Your task to perform on an android device: Open sound settings Image 0: 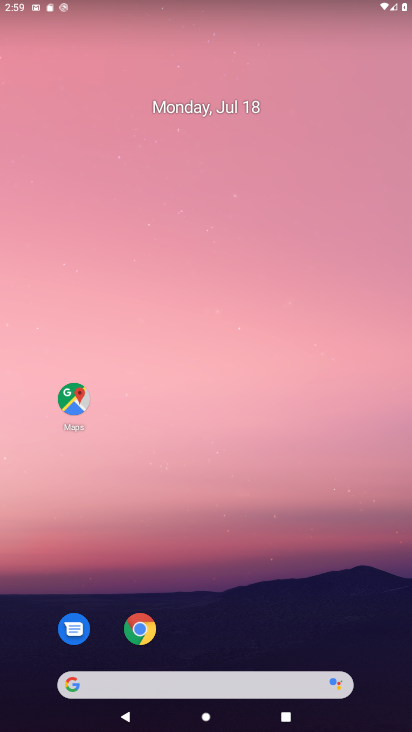
Step 0: drag from (310, 622) to (362, 98)
Your task to perform on an android device: Open sound settings Image 1: 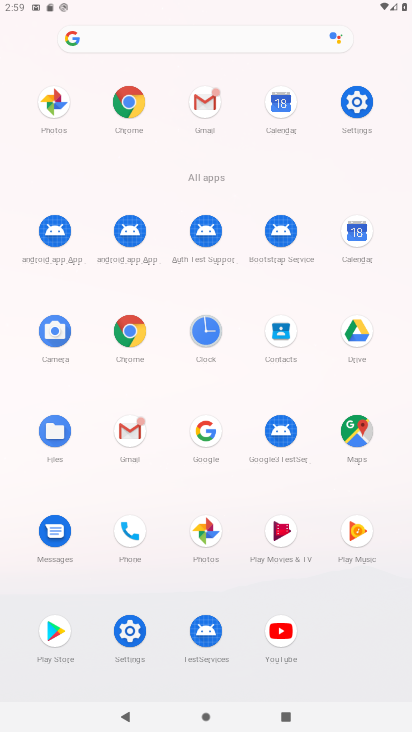
Step 1: click (354, 115)
Your task to perform on an android device: Open sound settings Image 2: 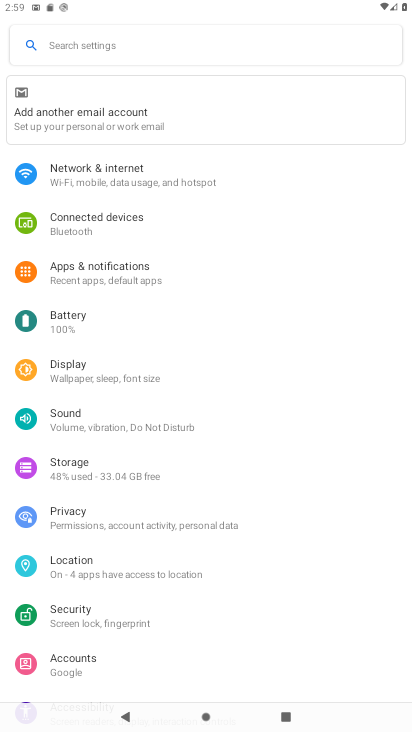
Step 2: drag from (347, 451) to (348, 378)
Your task to perform on an android device: Open sound settings Image 3: 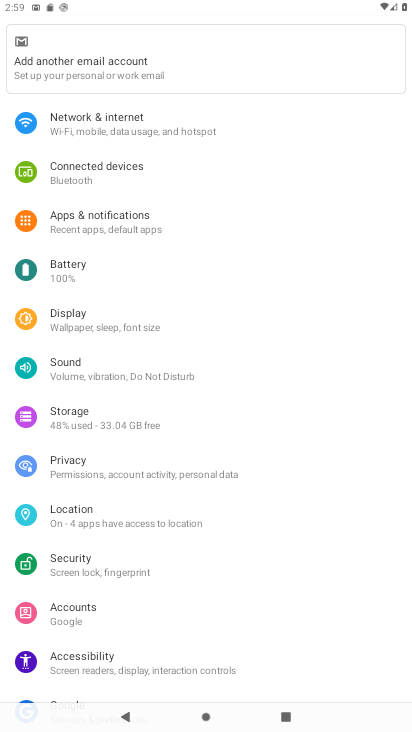
Step 3: drag from (335, 489) to (335, 394)
Your task to perform on an android device: Open sound settings Image 4: 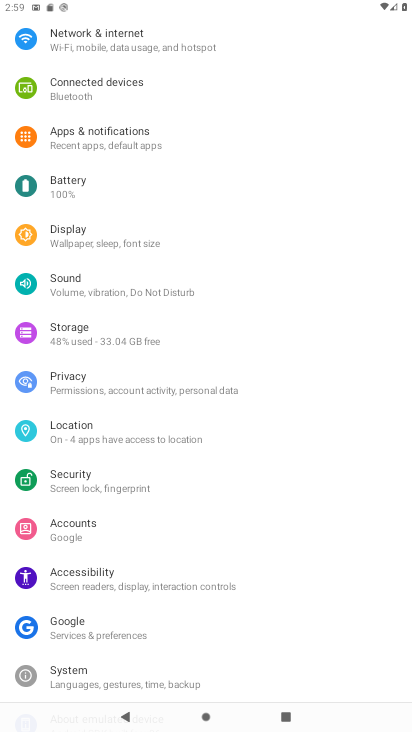
Step 4: drag from (316, 525) to (313, 400)
Your task to perform on an android device: Open sound settings Image 5: 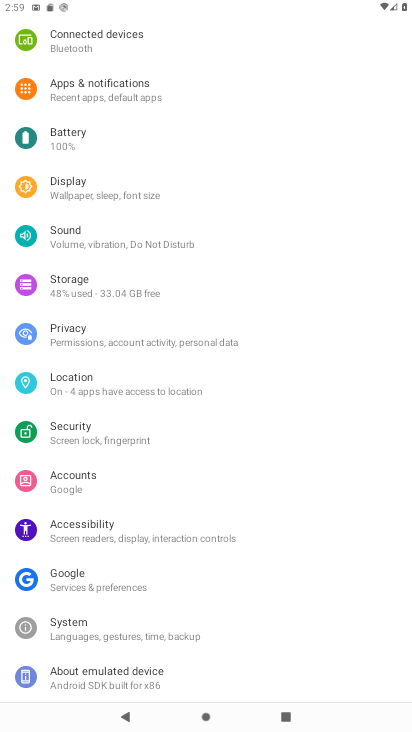
Step 5: drag from (314, 286) to (306, 376)
Your task to perform on an android device: Open sound settings Image 6: 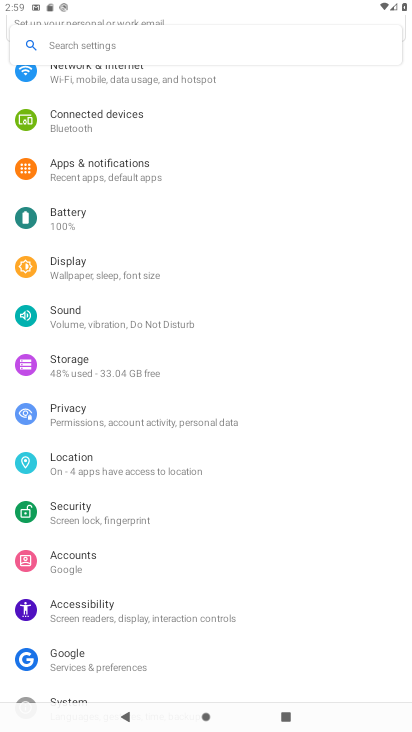
Step 6: drag from (310, 266) to (301, 356)
Your task to perform on an android device: Open sound settings Image 7: 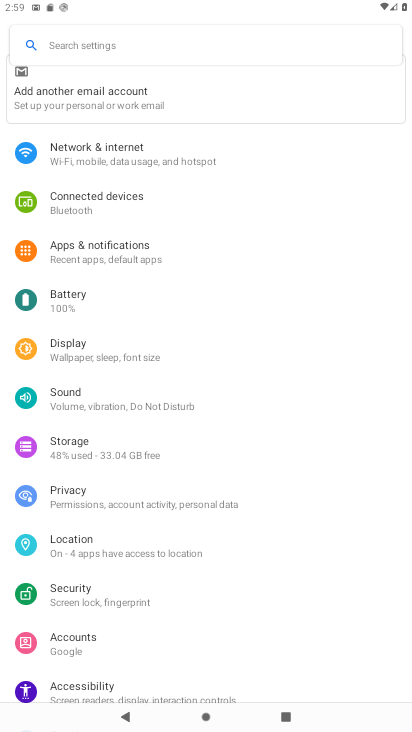
Step 7: drag from (297, 261) to (291, 387)
Your task to perform on an android device: Open sound settings Image 8: 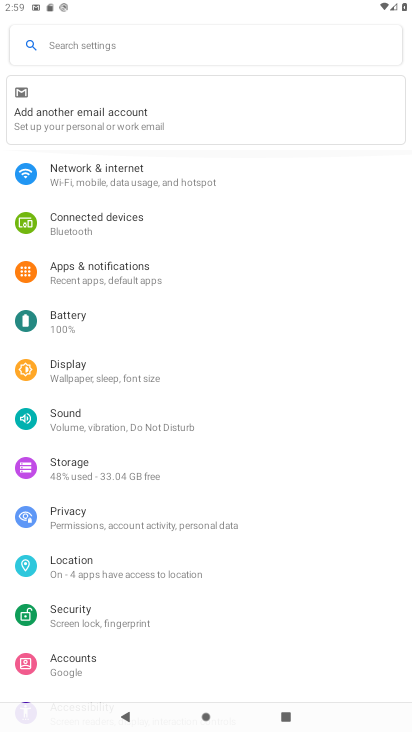
Step 8: click (238, 430)
Your task to perform on an android device: Open sound settings Image 9: 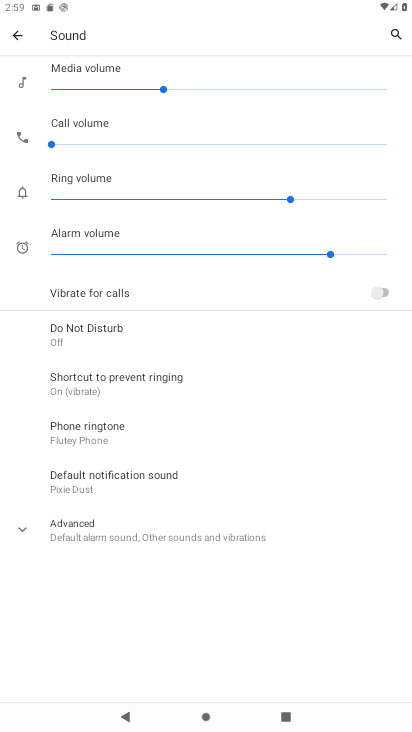
Step 9: click (277, 537)
Your task to perform on an android device: Open sound settings Image 10: 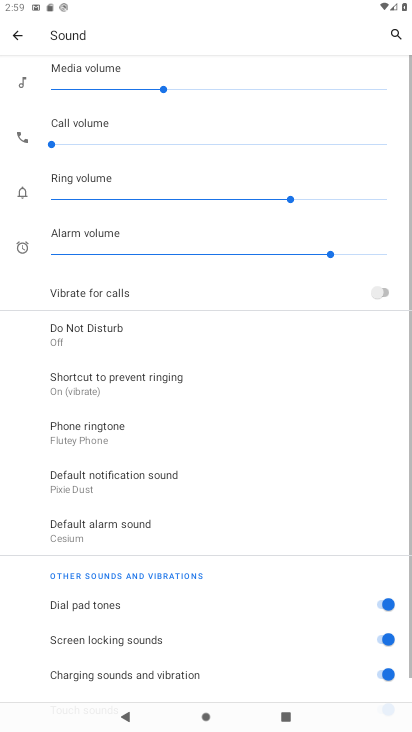
Step 10: task complete